Your task to perform on an android device: Open the Play Movies app and select the watchlist tab. Image 0: 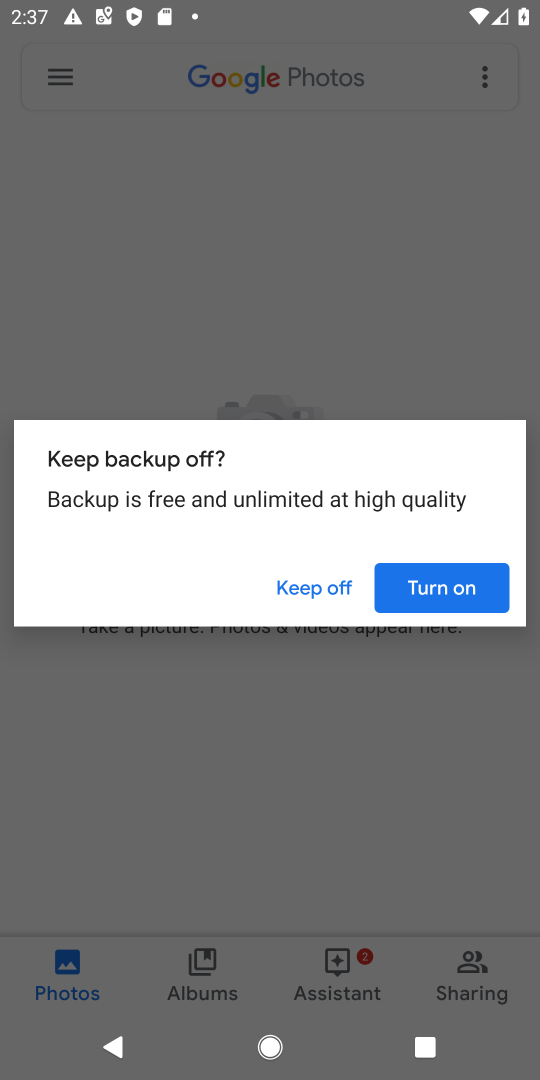
Step 0: press back button
Your task to perform on an android device: Open the Play Movies app and select the watchlist tab. Image 1: 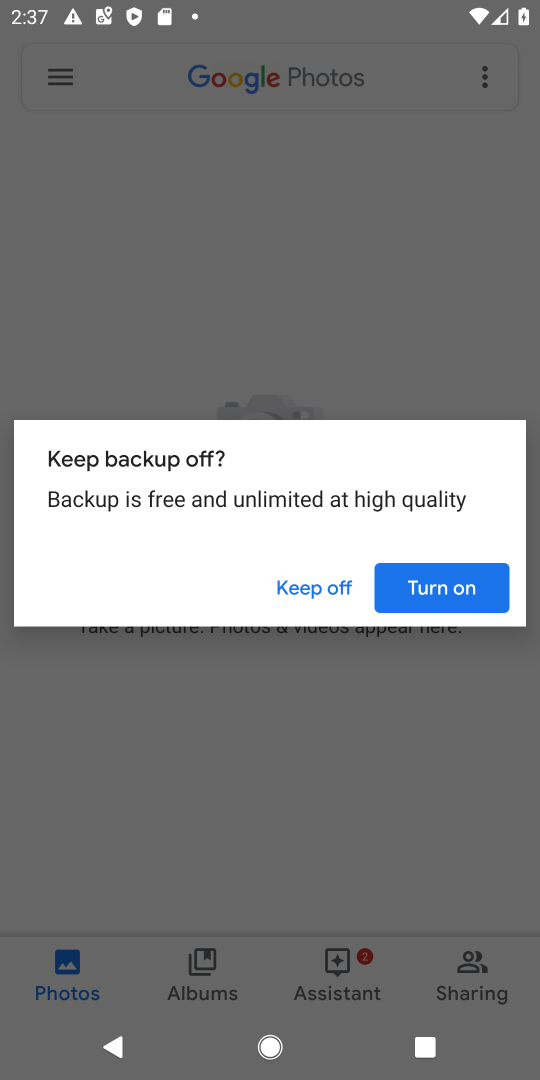
Step 1: press home button
Your task to perform on an android device: Open the Play Movies app and select the watchlist tab. Image 2: 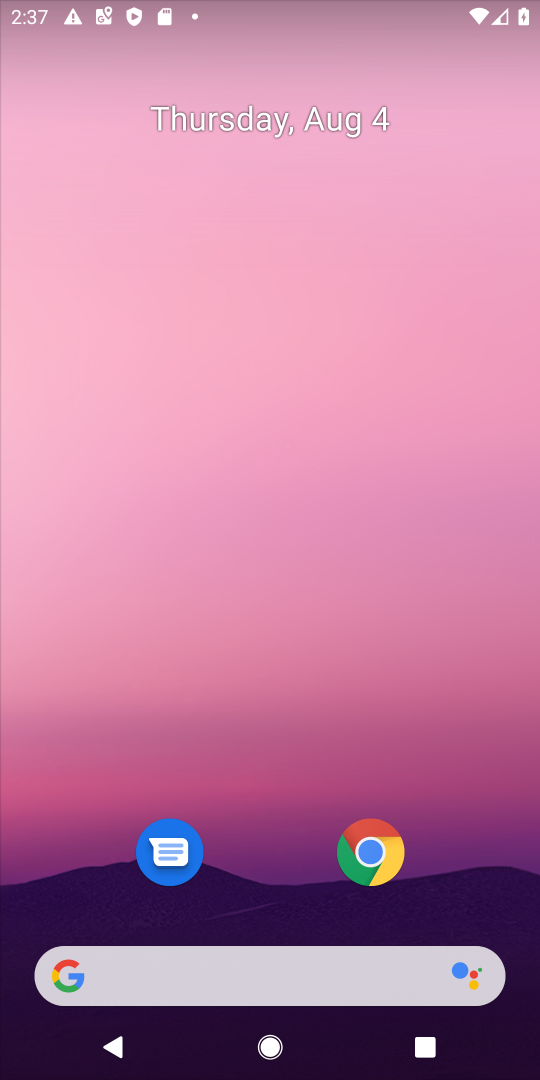
Step 2: drag from (282, 869) to (379, 5)
Your task to perform on an android device: Open the Play Movies app and select the watchlist tab. Image 3: 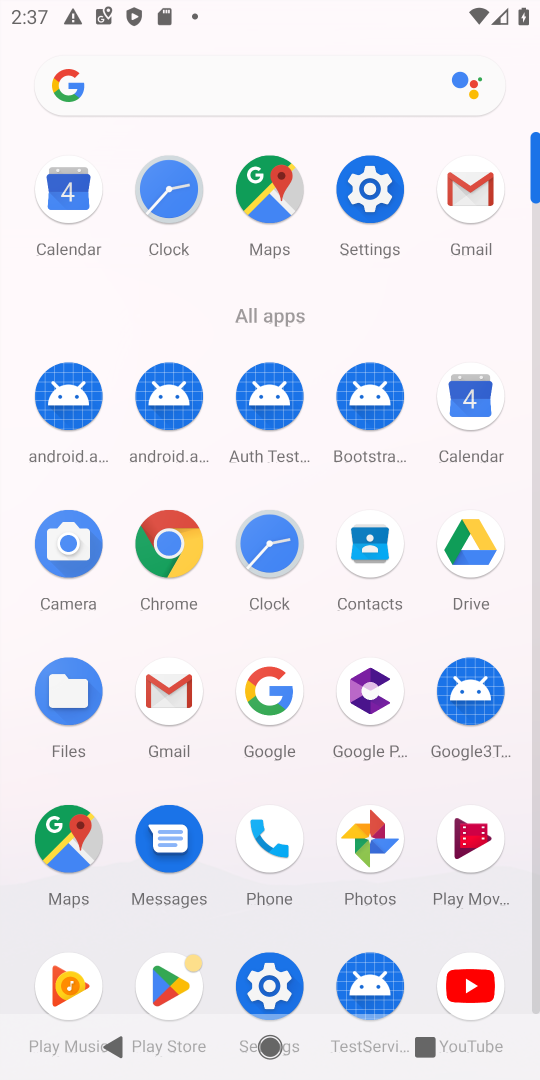
Step 3: click (470, 860)
Your task to perform on an android device: Open the Play Movies app and select the watchlist tab. Image 4: 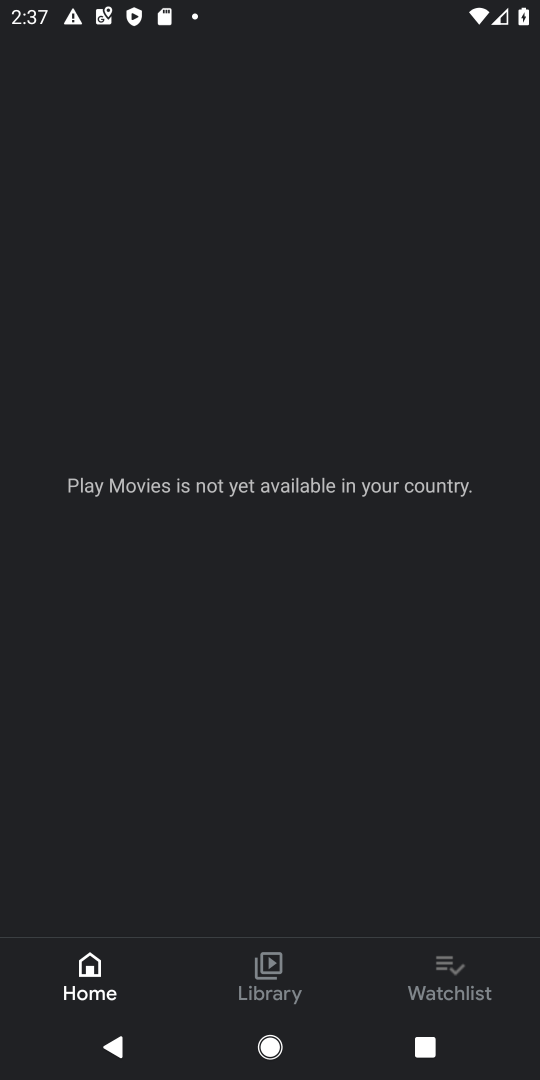
Step 4: click (468, 984)
Your task to perform on an android device: Open the Play Movies app and select the watchlist tab. Image 5: 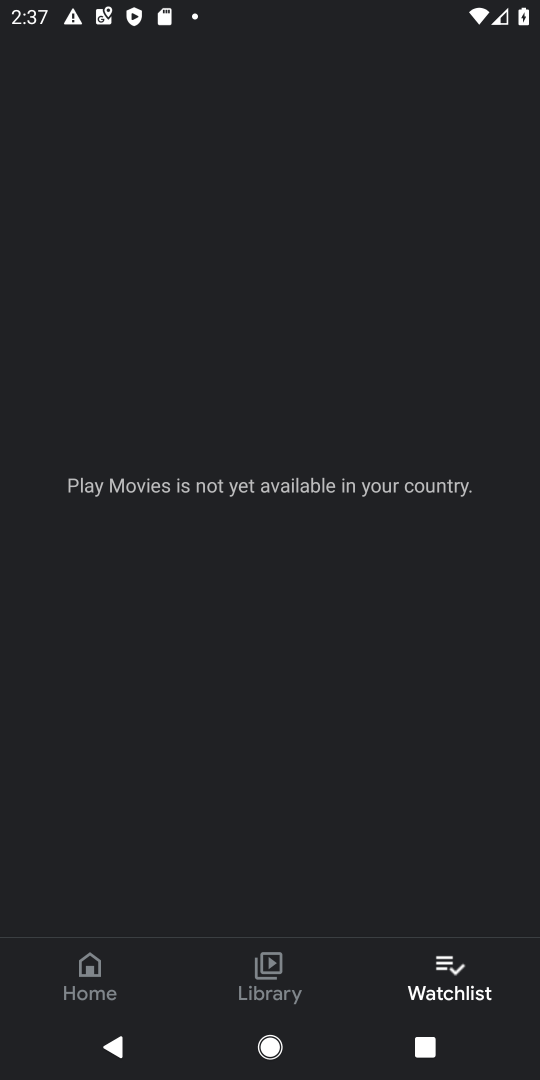
Step 5: task complete